Your task to perform on an android device: turn on javascript in the chrome app Image 0: 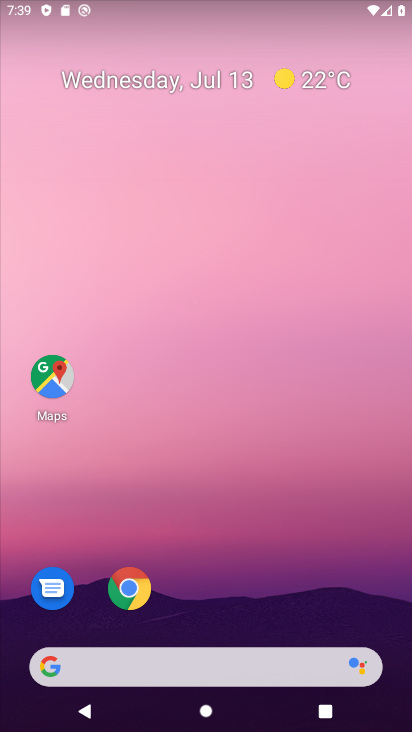
Step 0: drag from (243, 657) to (174, 64)
Your task to perform on an android device: turn on javascript in the chrome app Image 1: 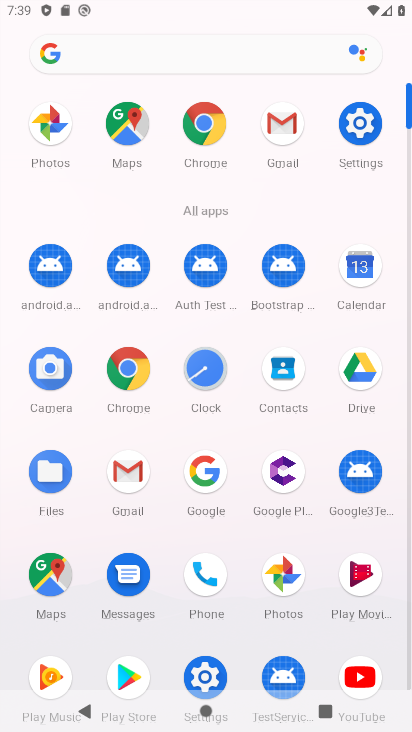
Step 1: click (204, 105)
Your task to perform on an android device: turn on javascript in the chrome app Image 2: 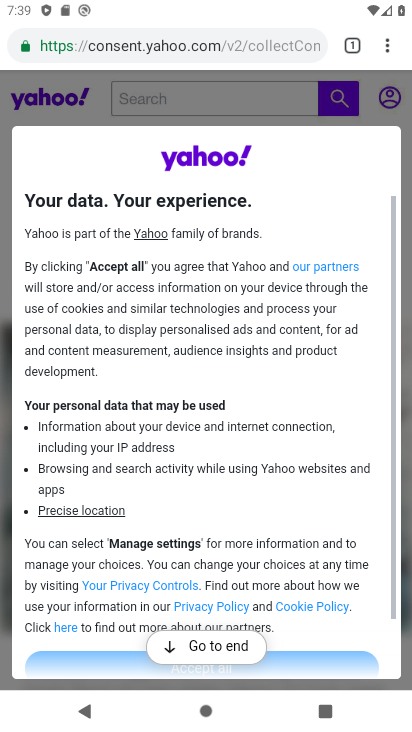
Step 2: click (381, 40)
Your task to perform on an android device: turn on javascript in the chrome app Image 3: 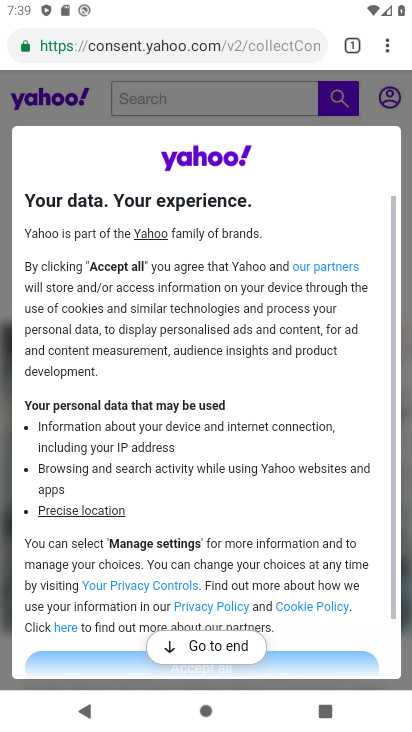
Step 3: click (384, 38)
Your task to perform on an android device: turn on javascript in the chrome app Image 4: 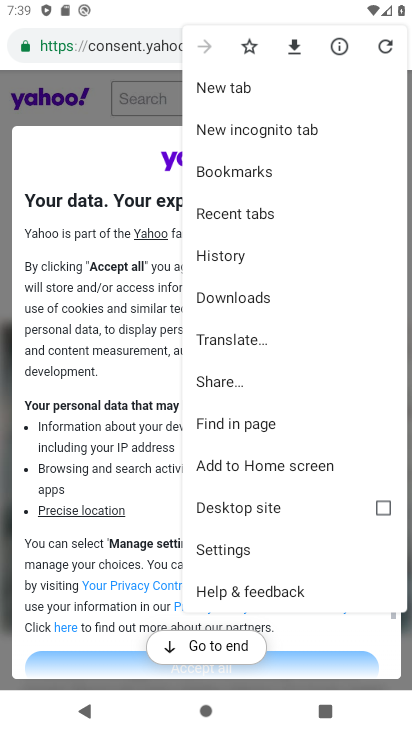
Step 4: click (243, 542)
Your task to perform on an android device: turn on javascript in the chrome app Image 5: 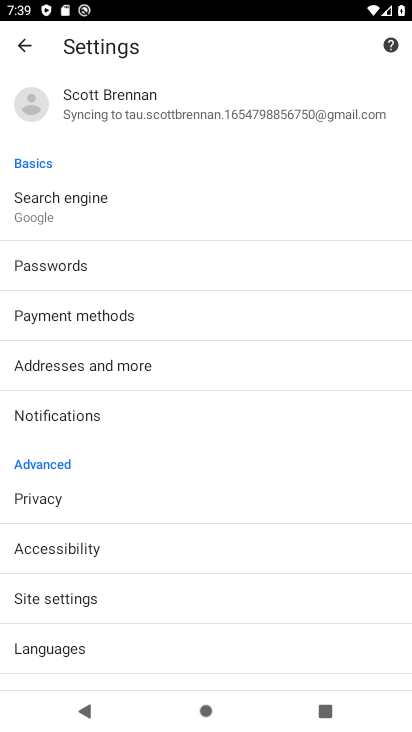
Step 5: drag from (174, 644) to (186, 263)
Your task to perform on an android device: turn on javascript in the chrome app Image 6: 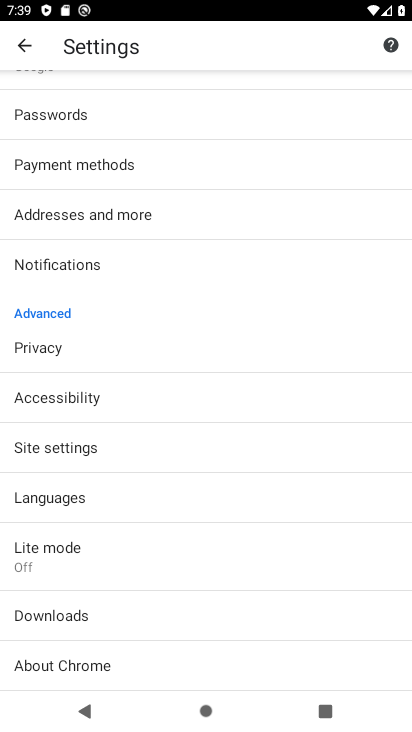
Step 6: click (101, 441)
Your task to perform on an android device: turn on javascript in the chrome app Image 7: 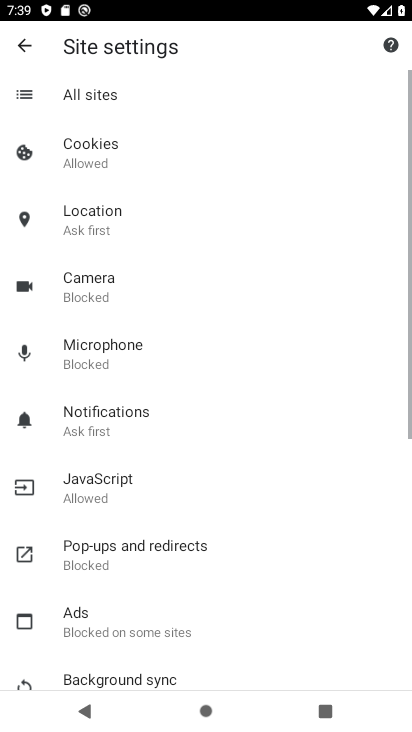
Step 7: click (119, 475)
Your task to perform on an android device: turn on javascript in the chrome app Image 8: 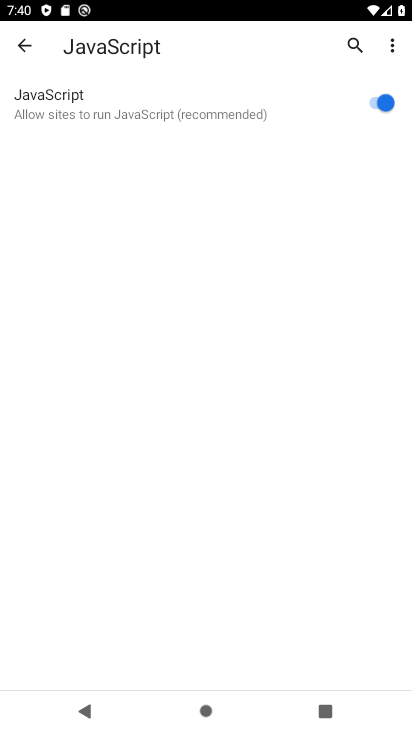
Step 8: task complete